Your task to perform on an android device: set default search engine in the chrome app Image 0: 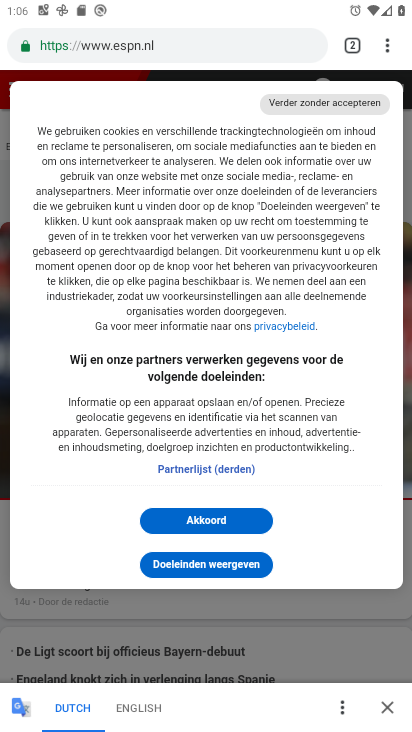
Step 0: click (399, 461)
Your task to perform on an android device: set default search engine in the chrome app Image 1: 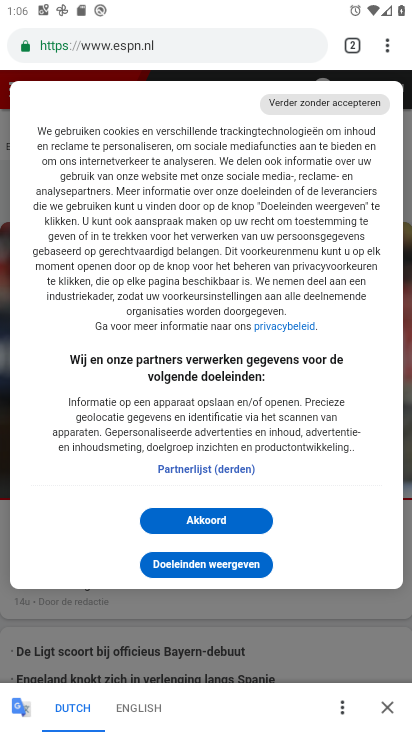
Step 1: drag from (300, 447) to (353, 213)
Your task to perform on an android device: set default search engine in the chrome app Image 2: 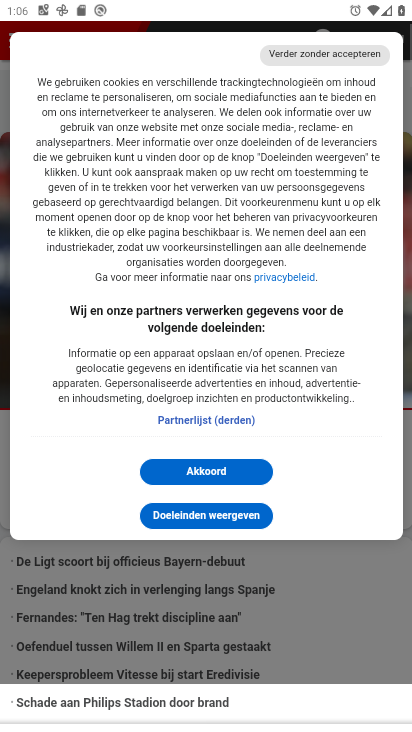
Step 2: drag from (342, 186) to (405, 596)
Your task to perform on an android device: set default search engine in the chrome app Image 3: 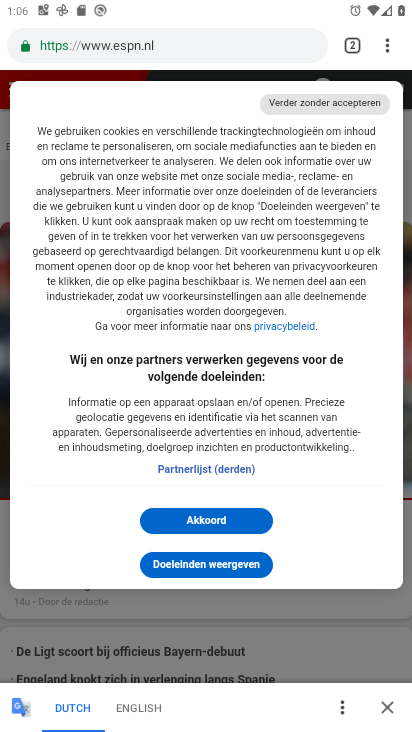
Step 3: drag from (210, 259) to (392, 702)
Your task to perform on an android device: set default search engine in the chrome app Image 4: 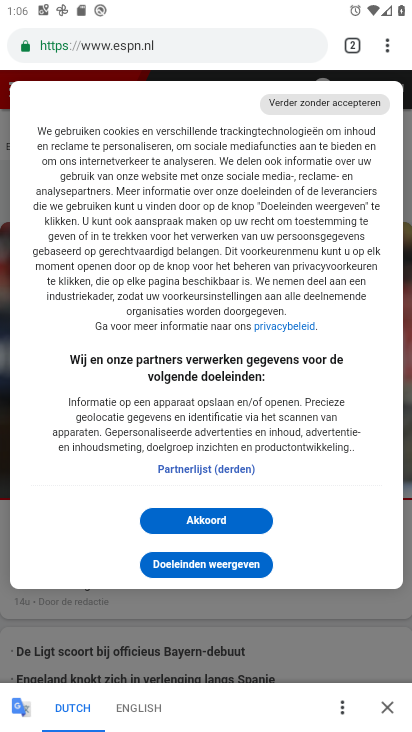
Step 4: drag from (249, 400) to (270, 219)
Your task to perform on an android device: set default search engine in the chrome app Image 5: 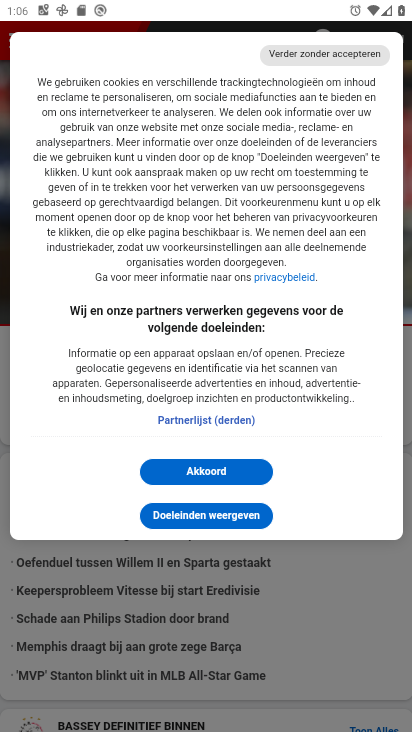
Step 5: drag from (284, 159) to (296, 622)
Your task to perform on an android device: set default search engine in the chrome app Image 6: 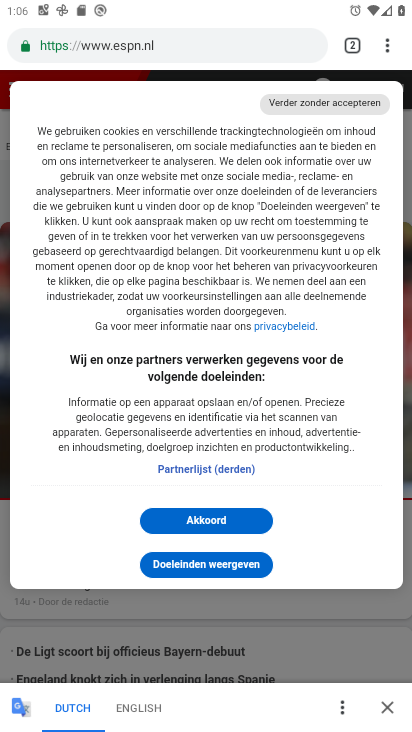
Step 6: drag from (389, 43) to (265, 545)
Your task to perform on an android device: set default search engine in the chrome app Image 7: 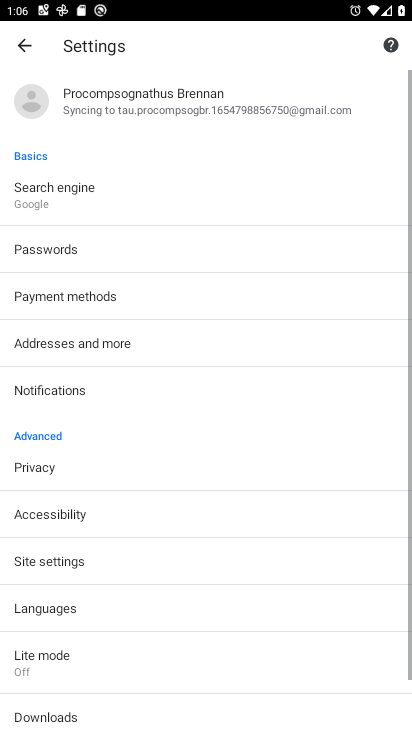
Step 7: click (70, 221)
Your task to perform on an android device: set default search engine in the chrome app Image 8: 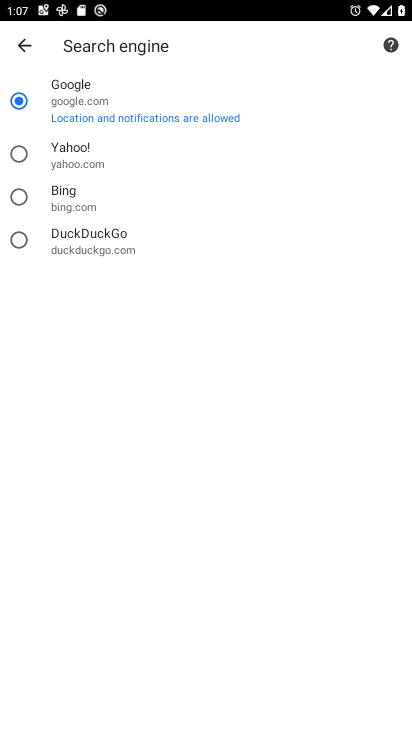
Step 8: task complete